Your task to perform on an android device: Open Maps and search for coffee Image 0: 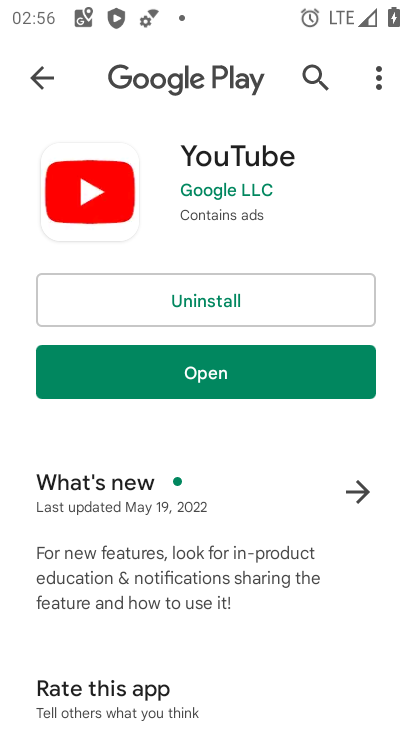
Step 0: press home button
Your task to perform on an android device: Open Maps and search for coffee Image 1: 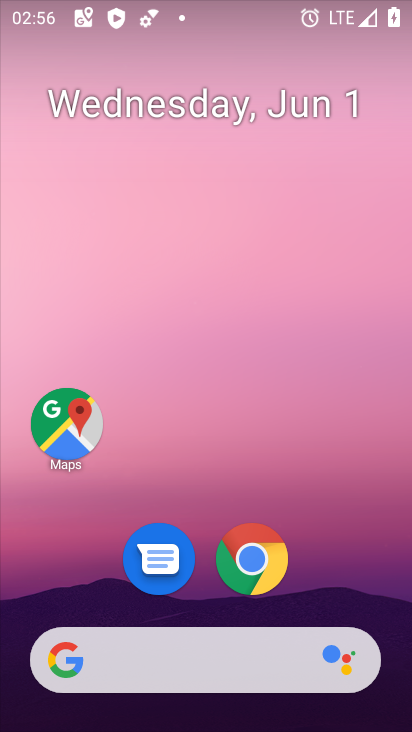
Step 1: click (69, 423)
Your task to perform on an android device: Open Maps and search for coffee Image 2: 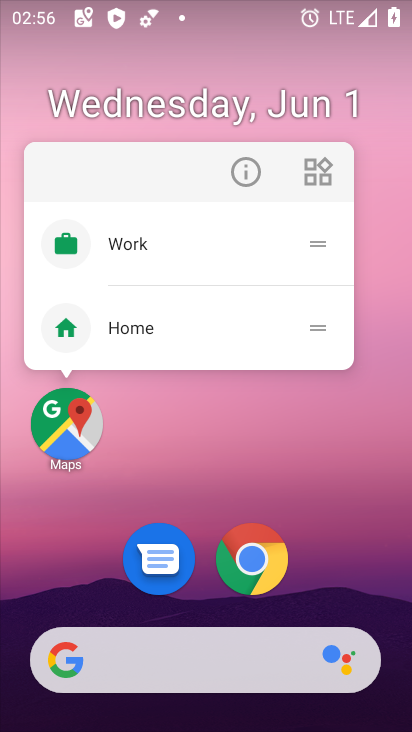
Step 2: click (69, 423)
Your task to perform on an android device: Open Maps and search for coffee Image 3: 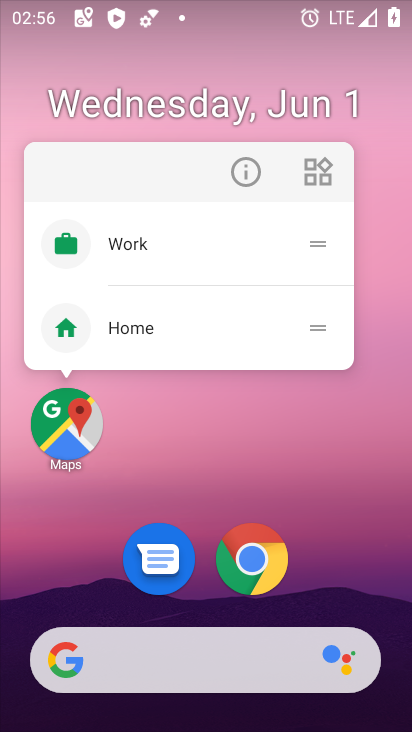
Step 3: click (66, 422)
Your task to perform on an android device: Open Maps and search for coffee Image 4: 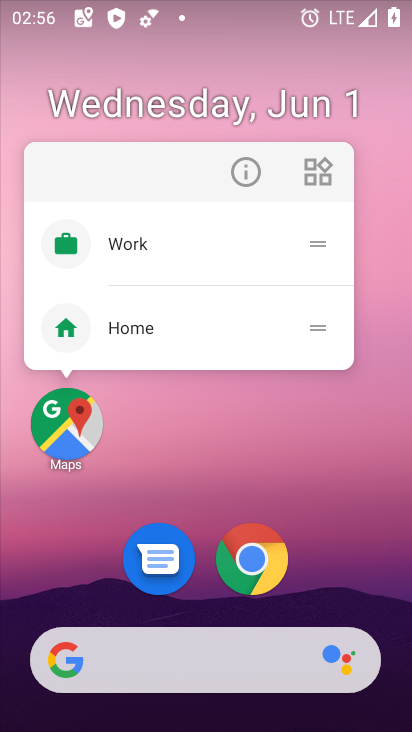
Step 4: click (303, 452)
Your task to perform on an android device: Open Maps and search for coffee Image 5: 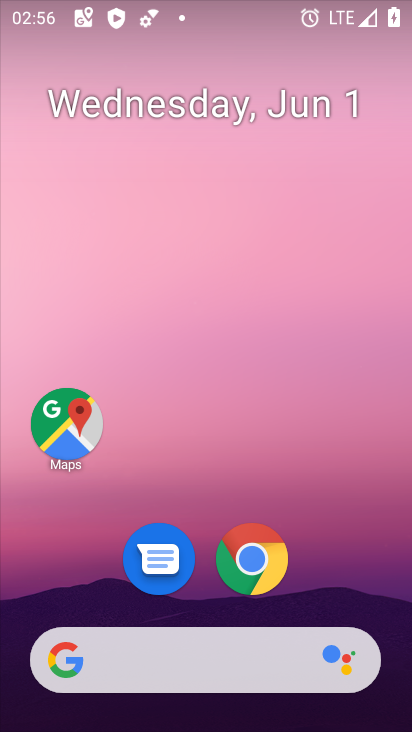
Step 5: drag from (326, 581) to (329, 130)
Your task to perform on an android device: Open Maps and search for coffee Image 6: 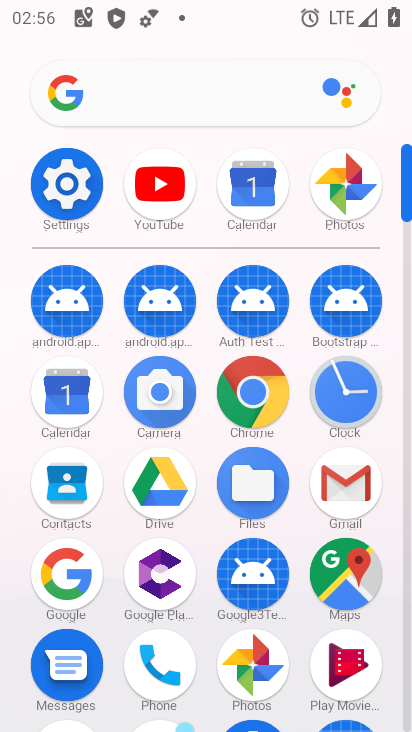
Step 6: click (346, 568)
Your task to perform on an android device: Open Maps and search for coffee Image 7: 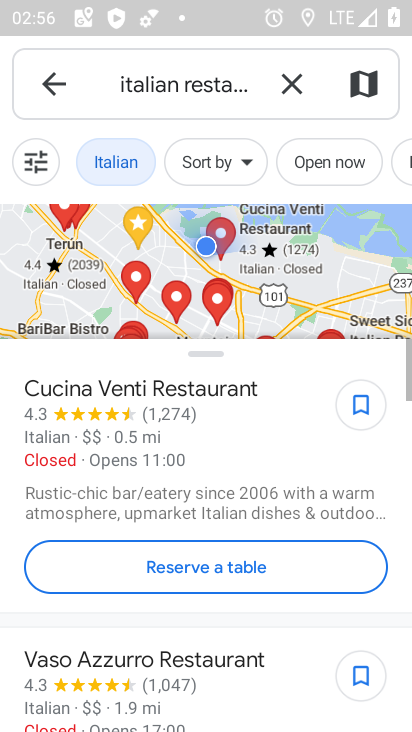
Step 7: click (295, 82)
Your task to perform on an android device: Open Maps and search for coffee Image 8: 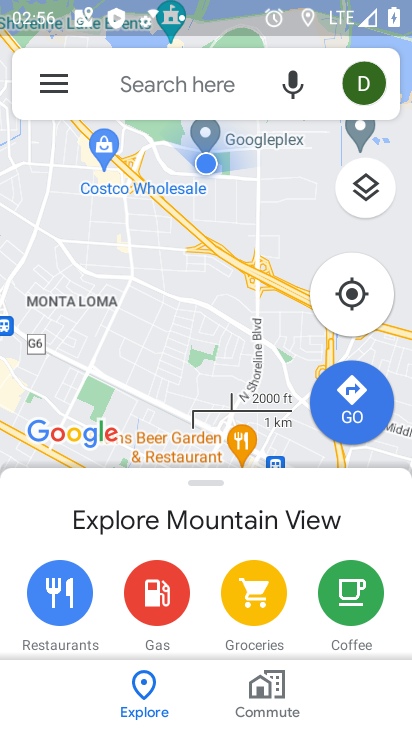
Step 8: click (165, 86)
Your task to perform on an android device: Open Maps and search for coffee Image 9: 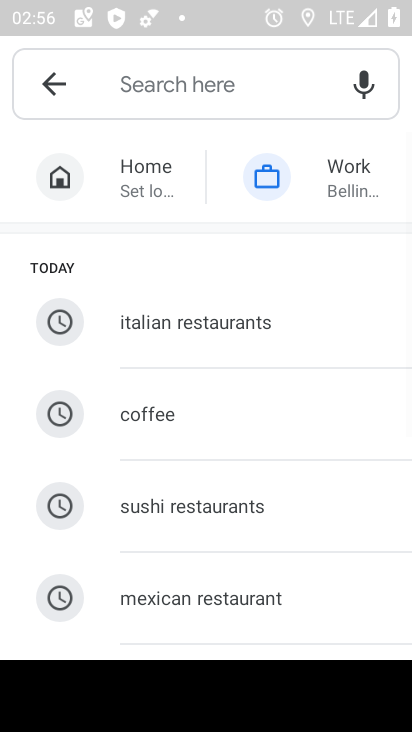
Step 9: click (149, 418)
Your task to perform on an android device: Open Maps and search for coffee Image 10: 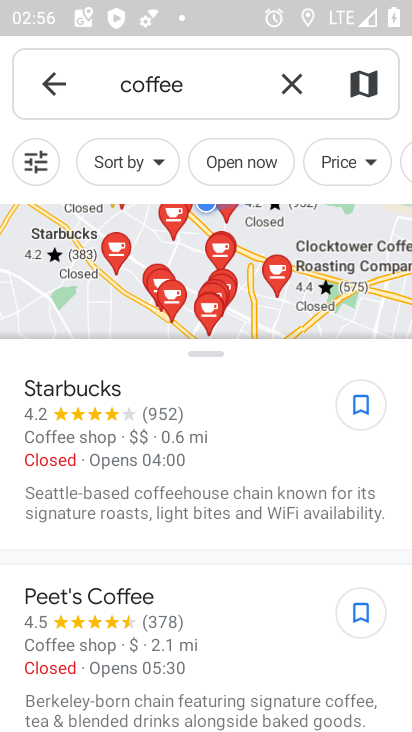
Step 10: task complete